Your task to perform on an android device: Go to Wikipedia Image 0: 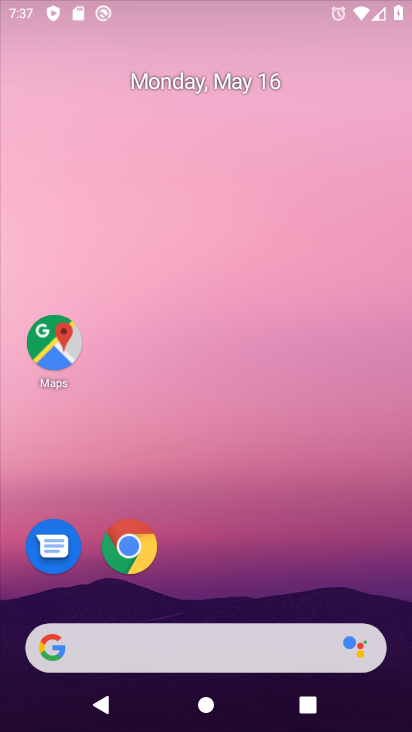
Step 0: click (279, 603)
Your task to perform on an android device: Go to Wikipedia Image 1: 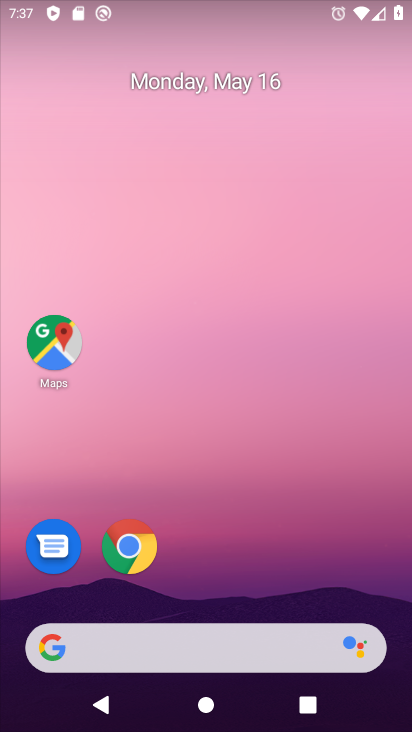
Step 1: click (114, 539)
Your task to perform on an android device: Go to Wikipedia Image 2: 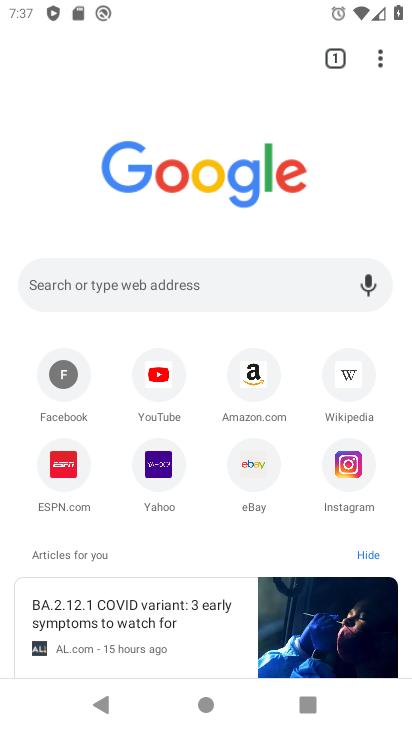
Step 2: click (366, 394)
Your task to perform on an android device: Go to Wikipedia Image 3: 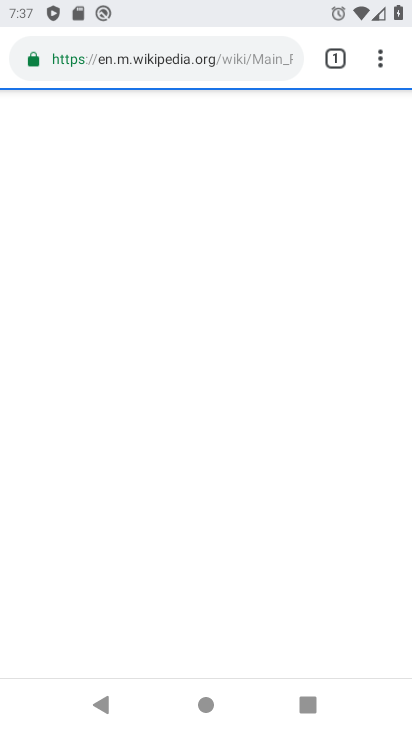
Step 3: task complete